Your task to perform on an android device: Search for Italian restaurants on Maps Image 0: 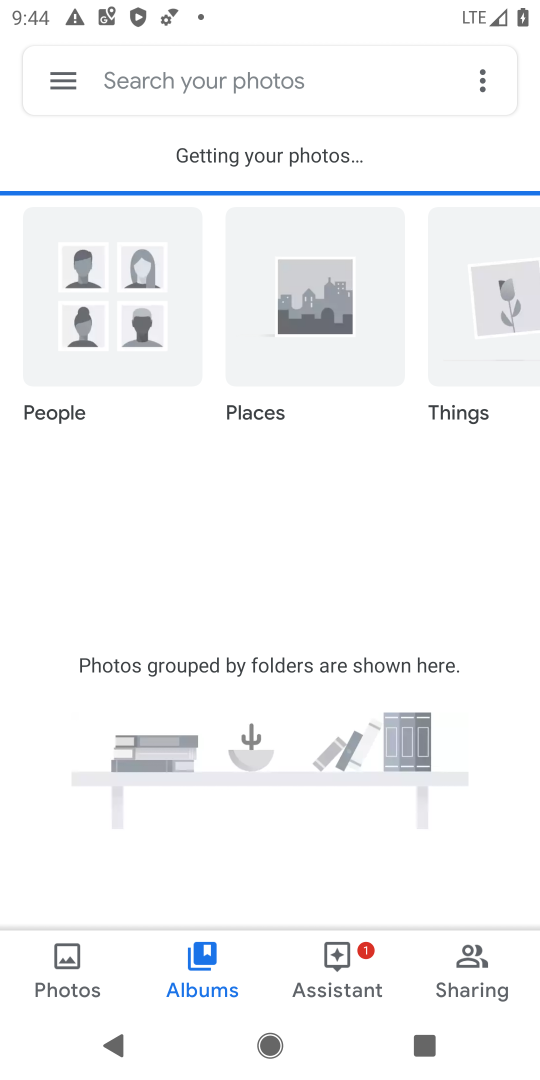
Step 0: press back button
Your task to perform on an android device: Search for Italian restaurants on Maps Image 1: 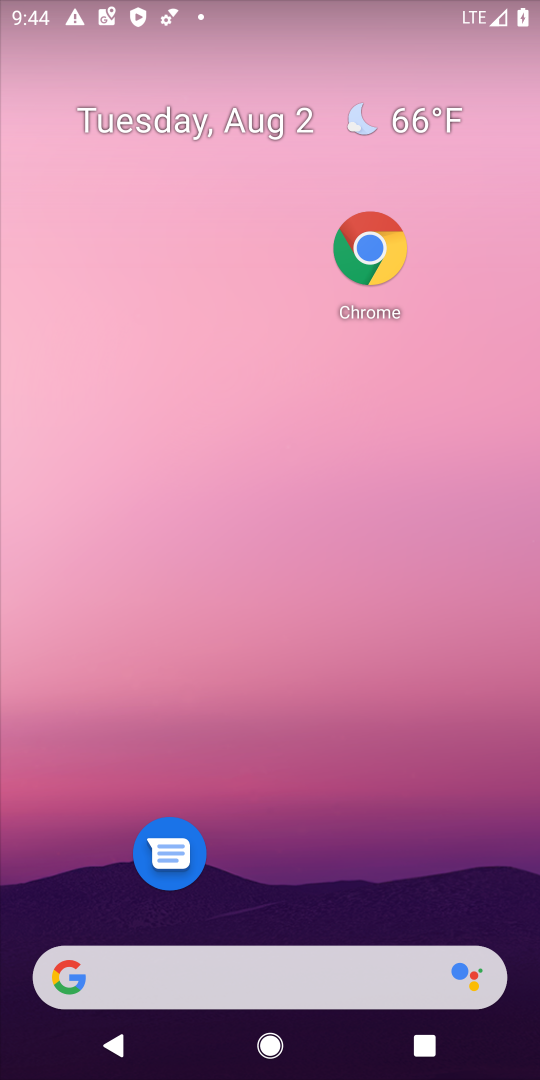
Step 1: drag from (234, 895) to (303, 27)
Your task to perform on an android device: Search for Italian restaurants on Maps Image 2: 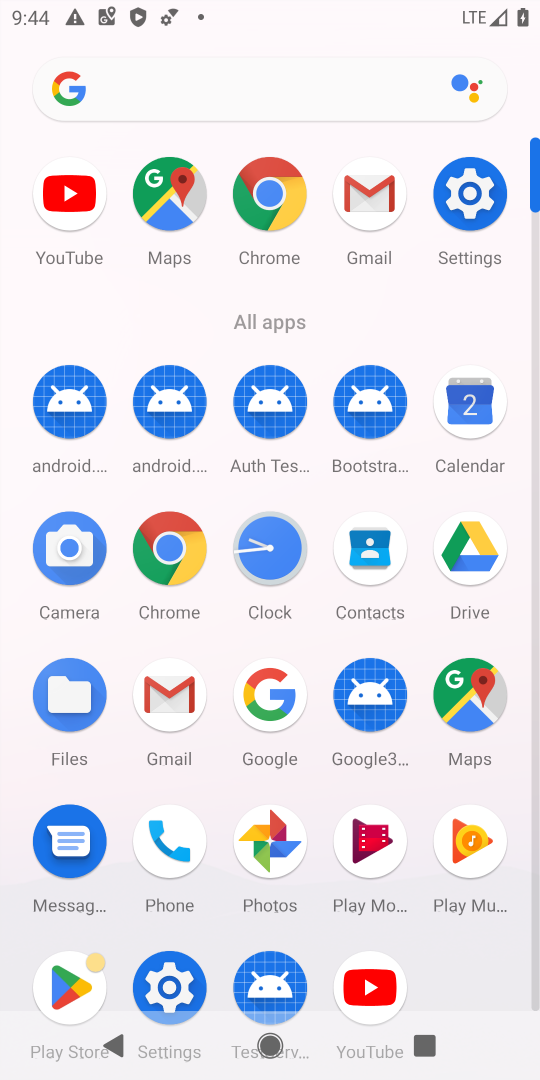
Step 2: click (490, 708)
Your task to perform on an android device: Search for Italian restaurants on Maps Image 3: 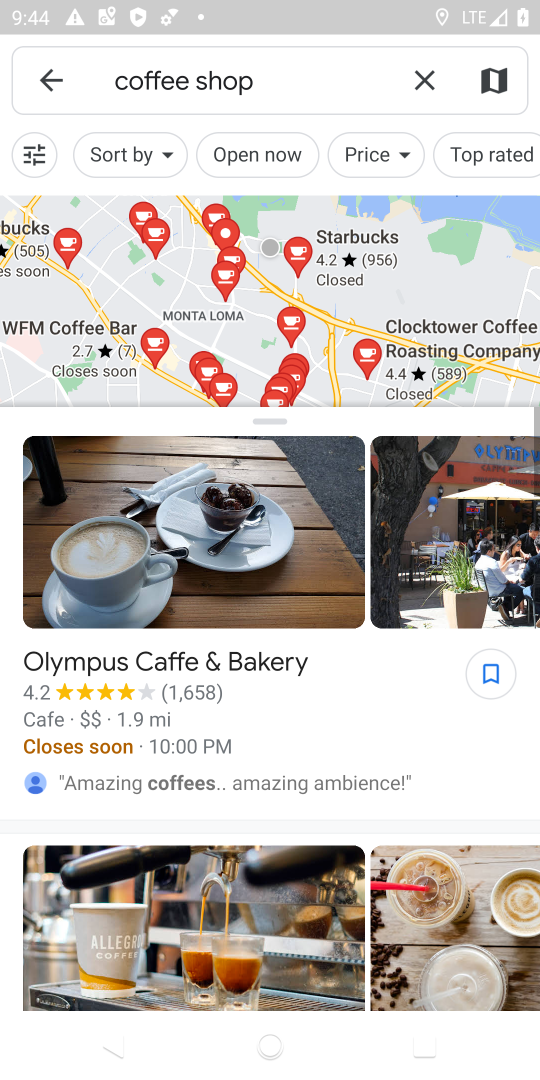
Step 3: click (67, 90)
Your task to perform on an android device: Search for Italian restaurants on Maps Image 4: 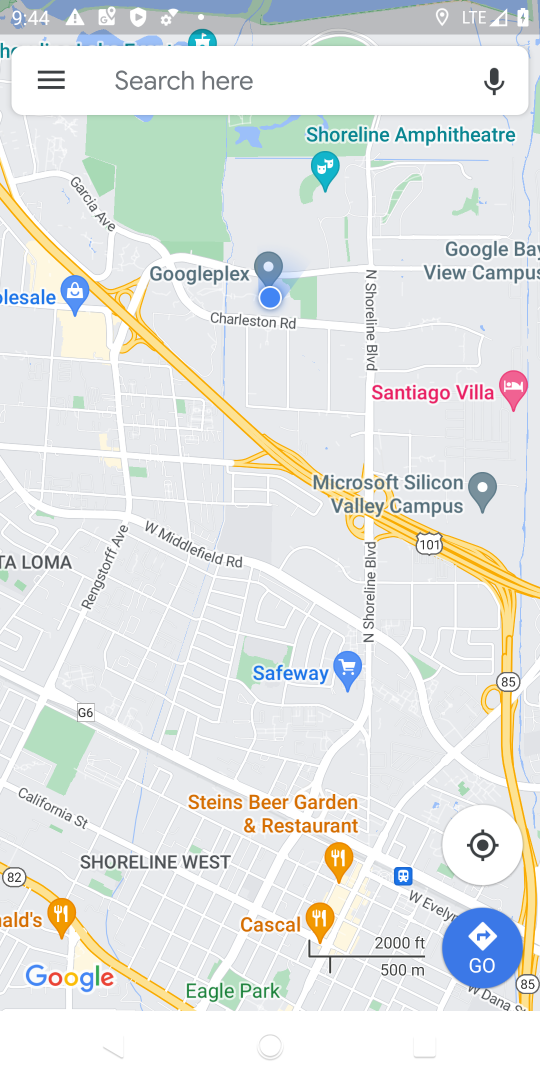
Step 4: click (228, 73)
Your task to perform on an android device: Search for Italian restaurants on Maps Image 5: 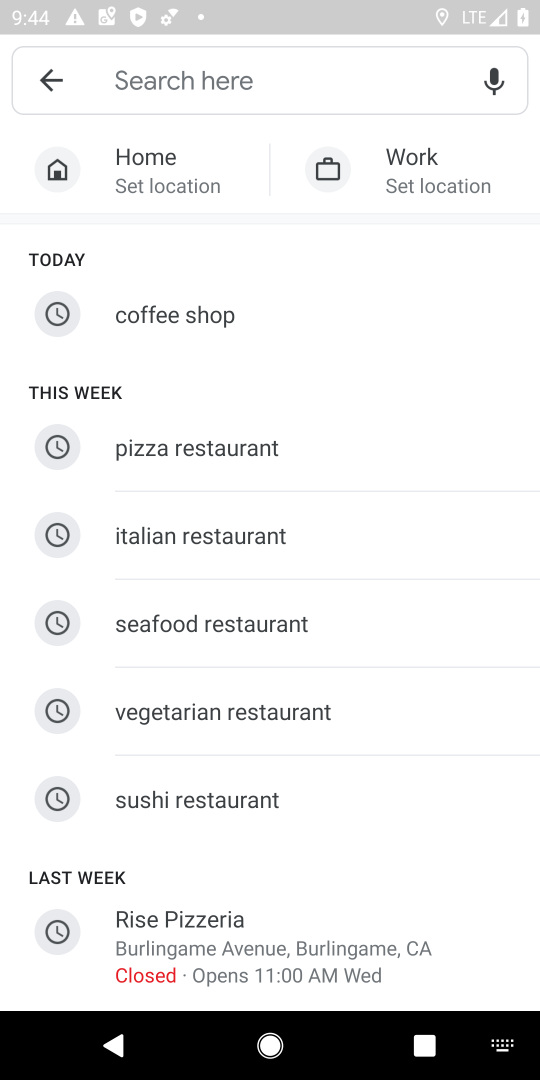
Step 5: click (181, 544)
Your task to perform on an android device: Search for Italian restaurants on Maps Image 6: 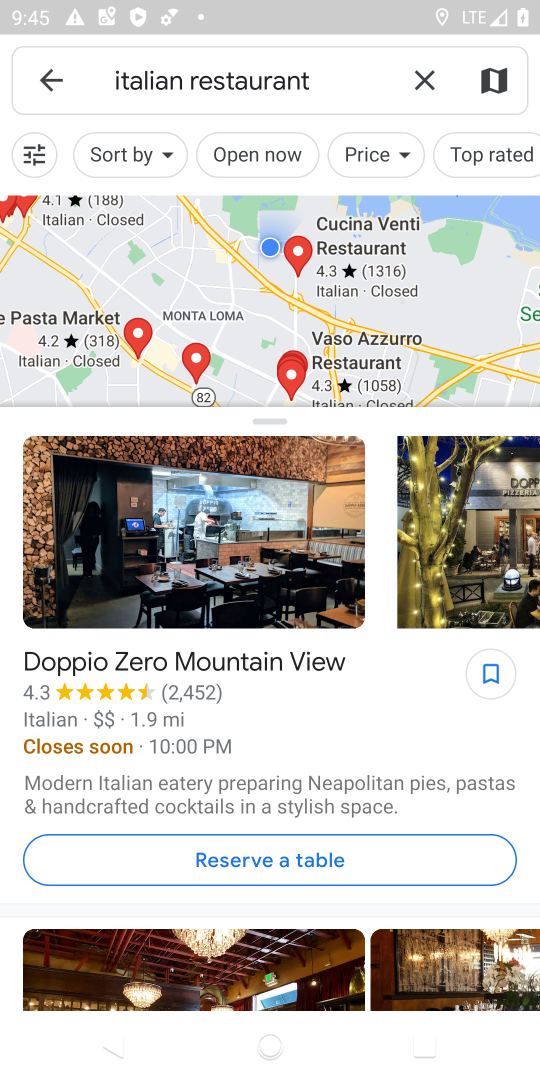
Step 6: task complete